Your task to perform on an android device: clear all cookies in the chrome app Image 0: 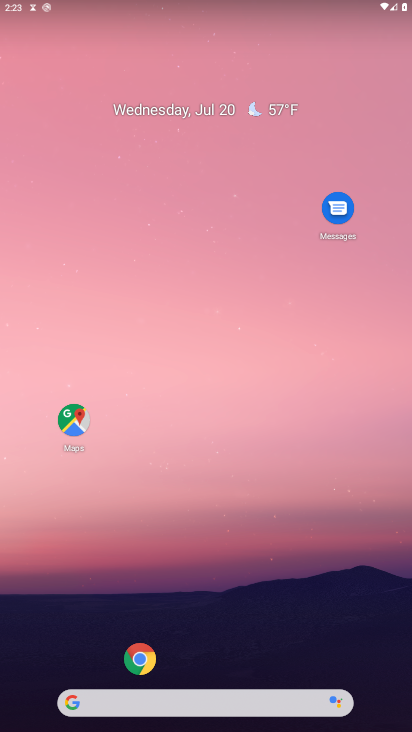
Step 0: click (136, 665)
Your task to perform on an android device: clear all cookies in the chrome app Image 1: 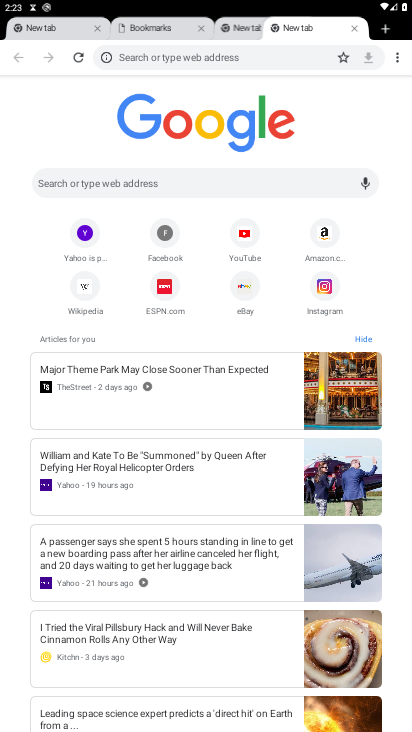
Step 1: click (400, 50)
Your task to perform on an android device: clear all cookies in the chrome app Image 2: 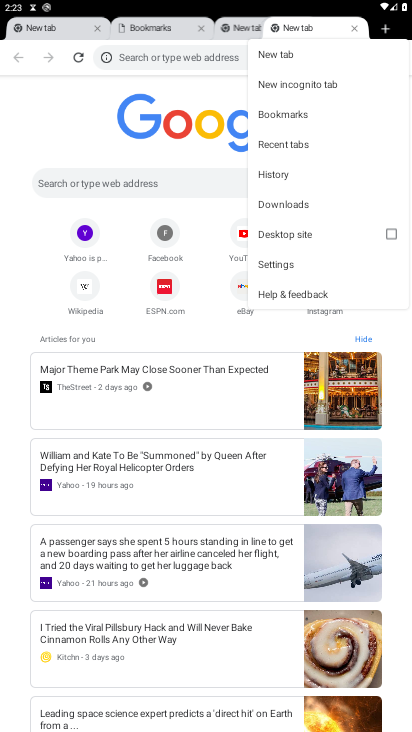
Step 2: click (271, 172)
Your task to perform on an android device: clear all cookies in the chrome app Image 3: 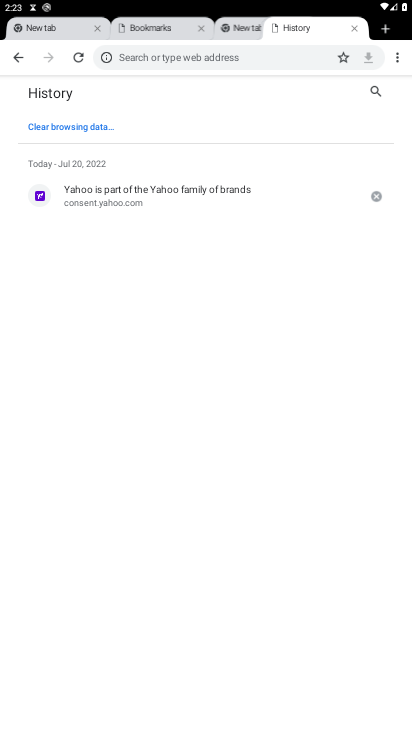
Step 3: click (99, 129)
Your task to perform on an android device: clear all cookies in the chrome app Image 4: 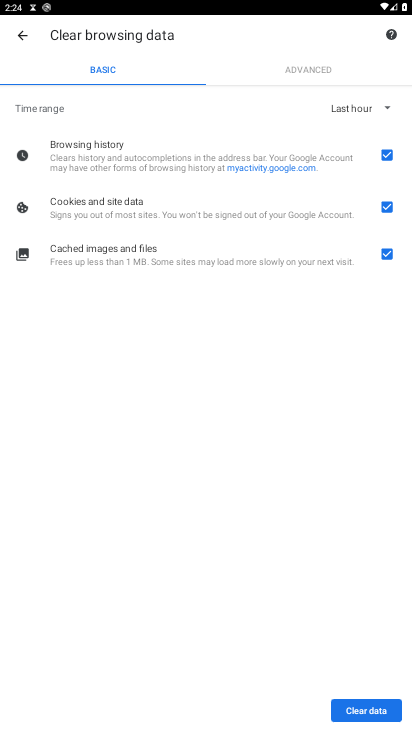
Step 4: click (392, 147)
Your task to perform on an android device: clear all cookies in the chrome app Image 5: 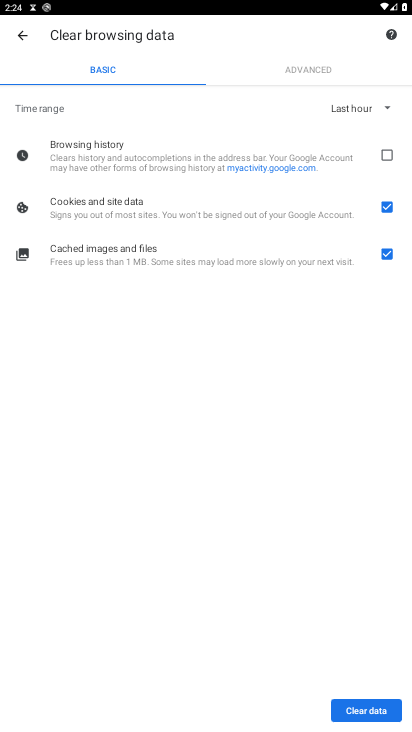
Step 5: click (382, 254)
Your task to perform on an android device: clear all cookies in the chrome app Image 6: 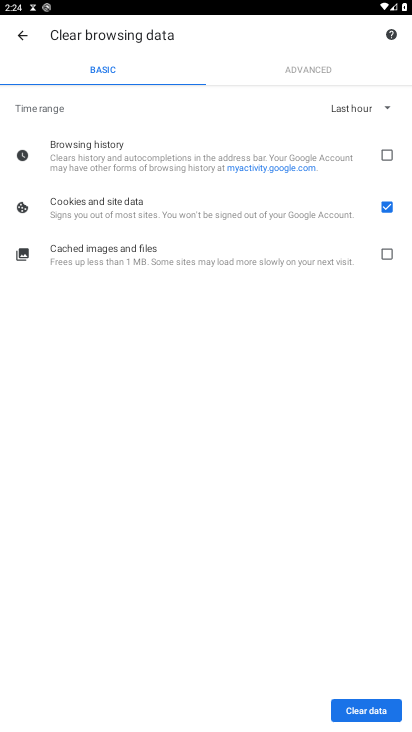
Step 6: click (366, 700)
Your task to perform on an android device: clear all cookies in the chrome app Image 7: 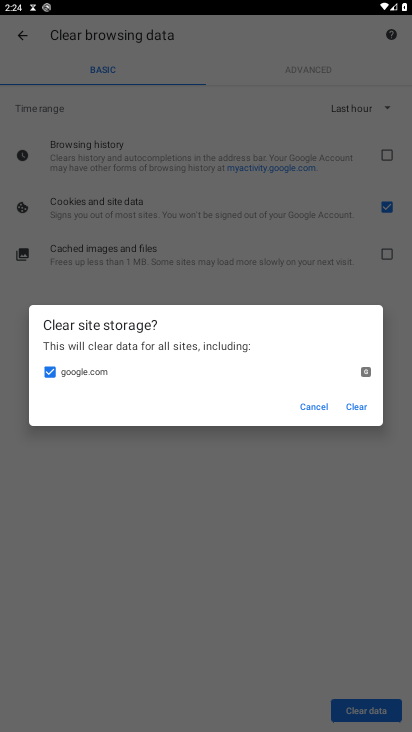
Step 7: click (349, 401)
Your task to perform on an android device: clear all cookies in the chrome app Image 8: 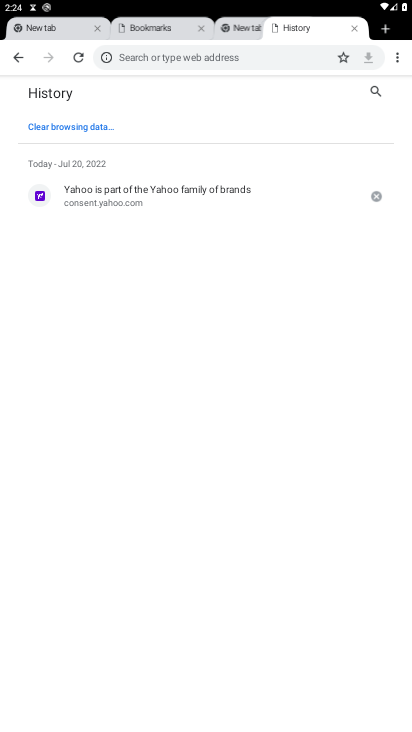
Step 8: task complete